Your task to perform on an android device: check data usage Image 0: 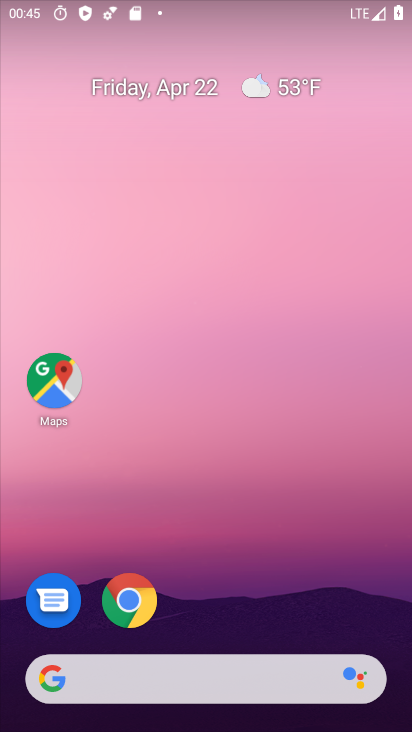
Step 0: drag from (210, 554) to (231, 90)
Your task to perform on an android device: check data usage Image 1: 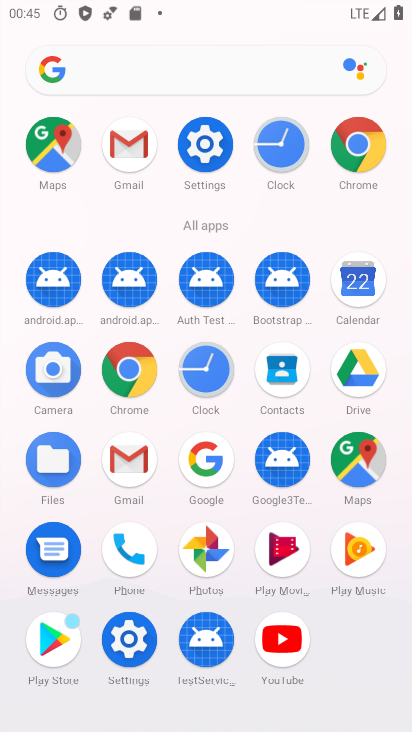
Step 1: click (210, 153)
Your task to perform on an android device: check data usage Image 2: 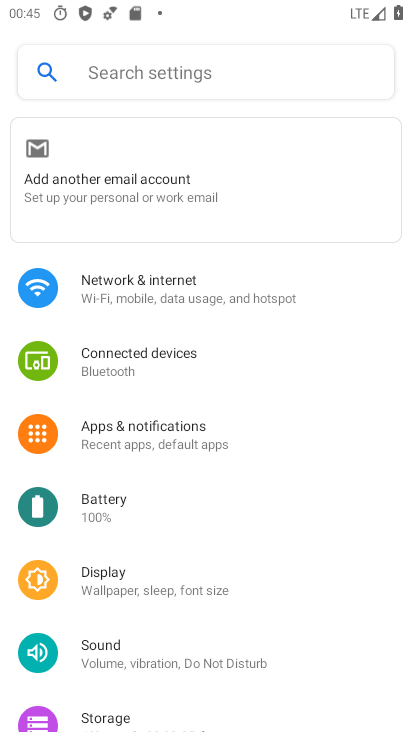
Step 2: click (212, 293)
Your task to perform on an android device: check data usage Image 3: 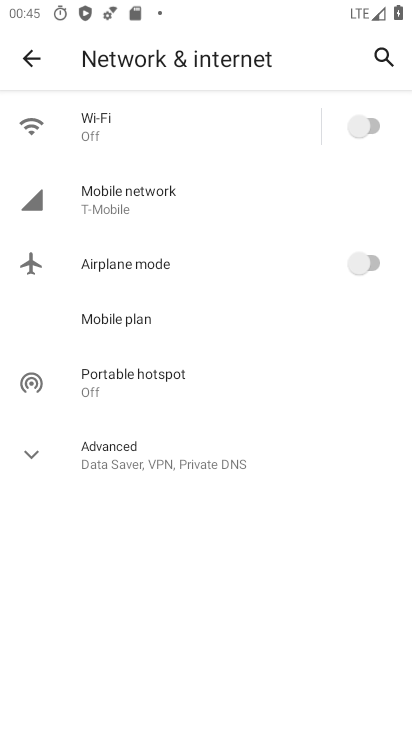
Step 3: click (211, 198)
Your task to perform on an android device: check data usage Image 4: 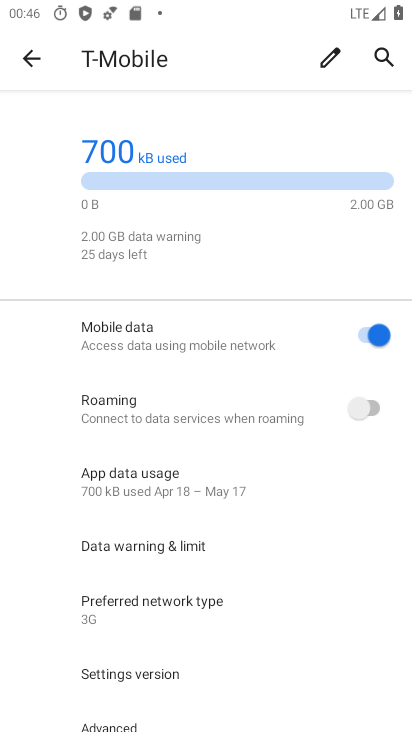
Step 4: task complete